Your task to perform on an android device: turn on the 12-hour format for clock Image 0: 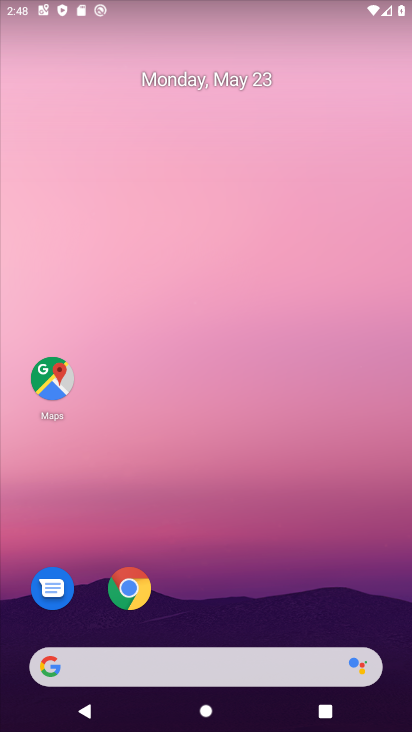
Step 0: drag from (189, 726) to (174, 66)
Your task to perform on an android device: turn on the 12-hour format for clock Image 1: 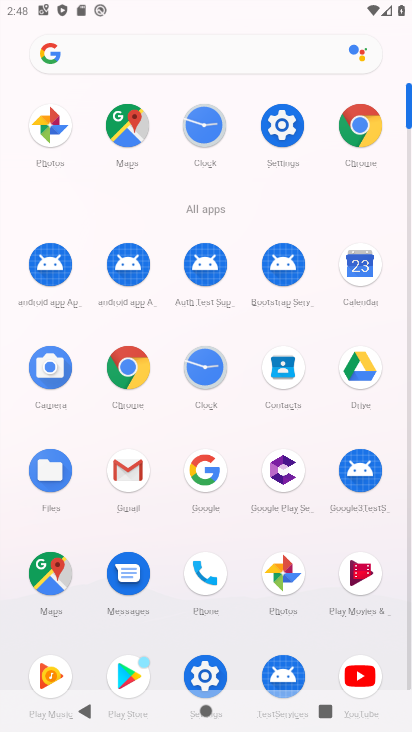
Step 1: click (205, 370)
Your task to perform on an android device: turn on the 12-hour format for clock Image 2: 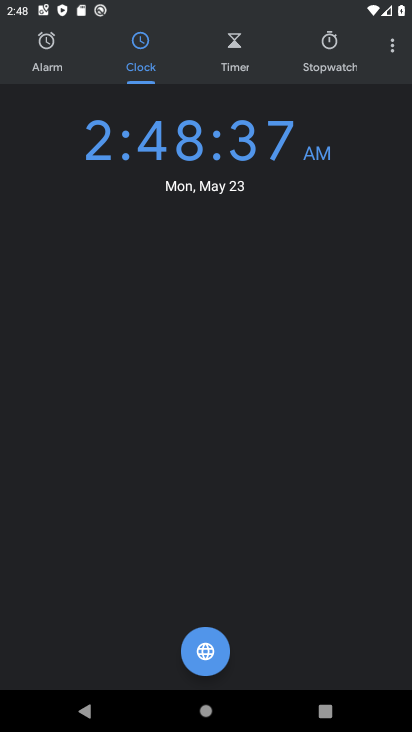
Step 2: click (395, 52)
Your task to perform on an android device: turn on the 12-hour format for clock Image 3: 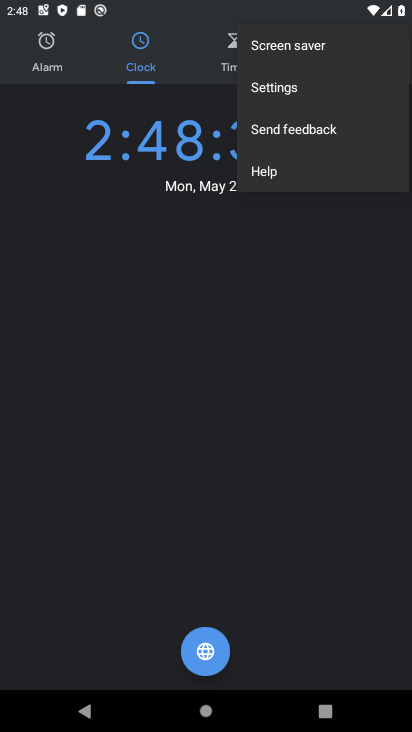
Step 3: click (289, 87)
Your task to perform on an android device: turn on the 12-hour format for clock Image 4: 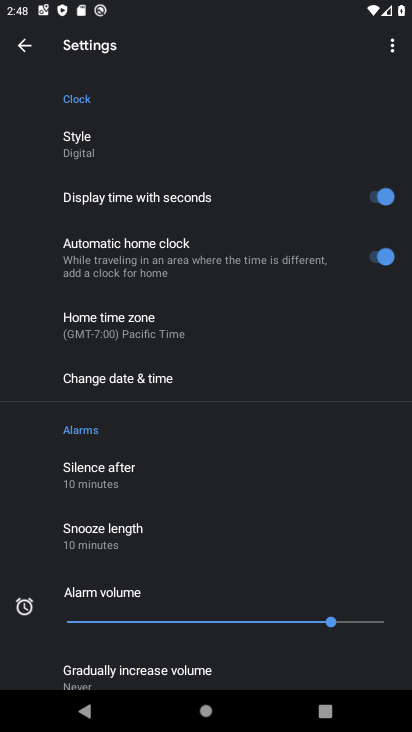
Step 4: click (121, 382)
Your task to perform on an android device: turn on the 12-hour format for clock Image 5: 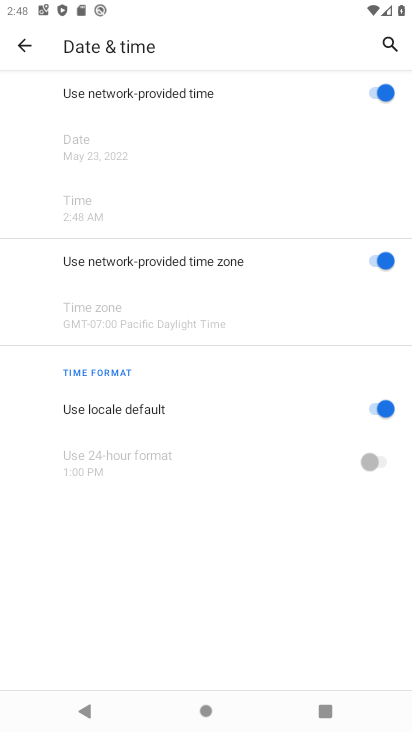
Step 5: drag from (152, 516) to (149, 257)
Your task to perform on an android device: turn on the 12-hour format for clock Image 6: 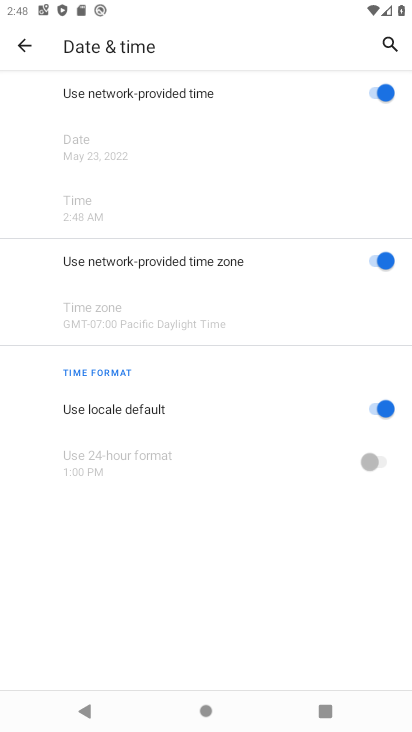
Step 6: click (372, 409)
Your task to perform on an android device: turn on the 12-hour format for clock Image 7: 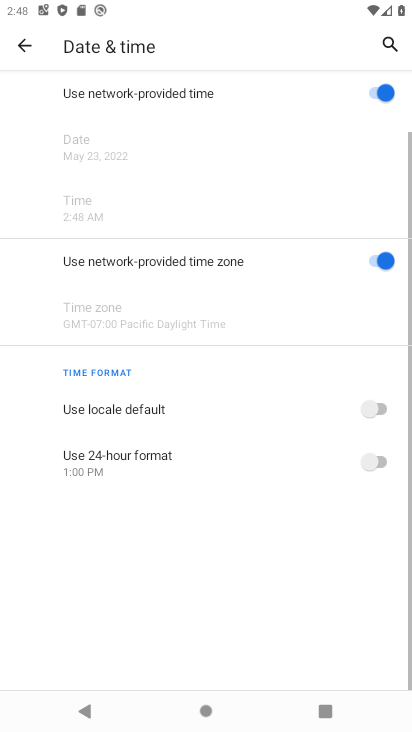
Step 7: click (380, 460)
Your task to perform on an android device: turn on the 12-hour format for clock Image 8: 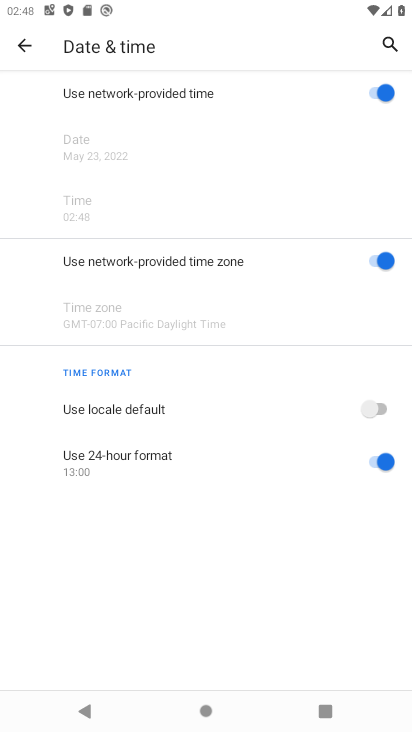
Step 8: task complete